Your task to perform on an android device: all mails in gmail Image 0: 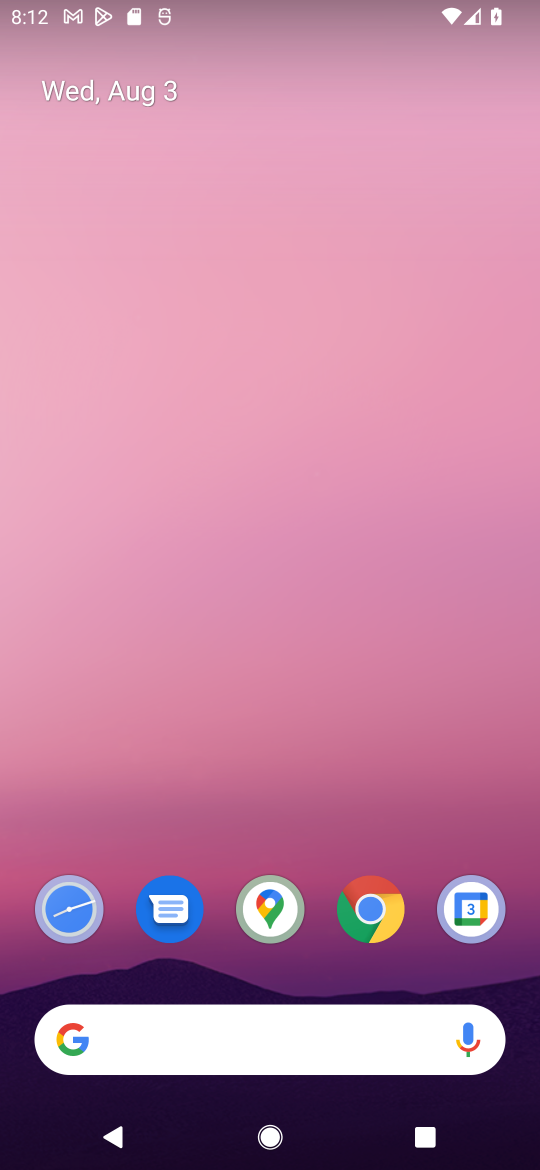
Step 0: press home button
Your task to perform on an android device: all mails in gmail Image 1: 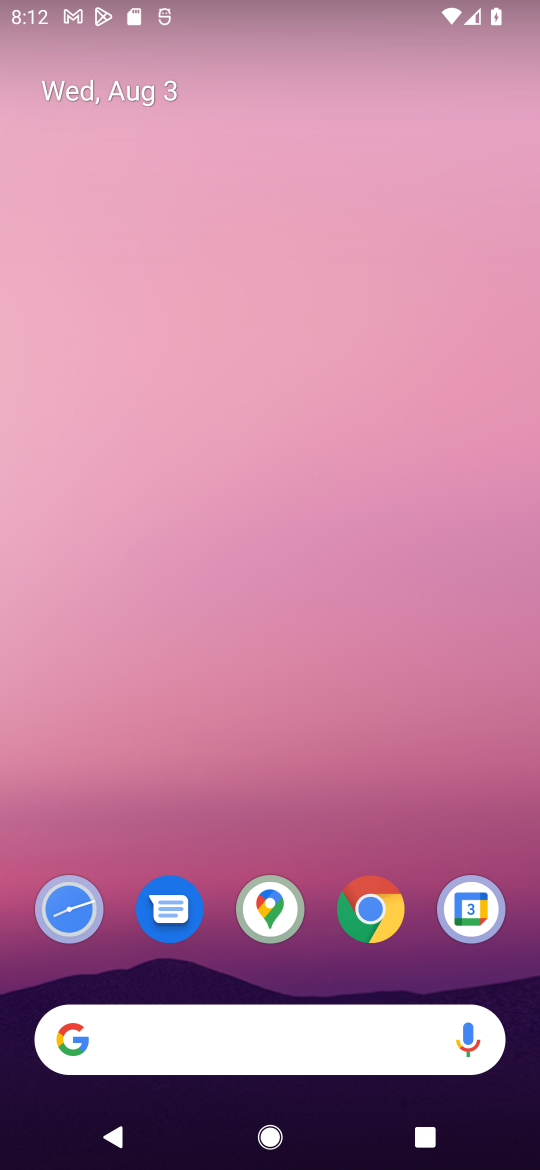
Step 1: drag from (344, 801) to (392, 268)
Your task to perform on an android device: all mails in gmail Image 2: 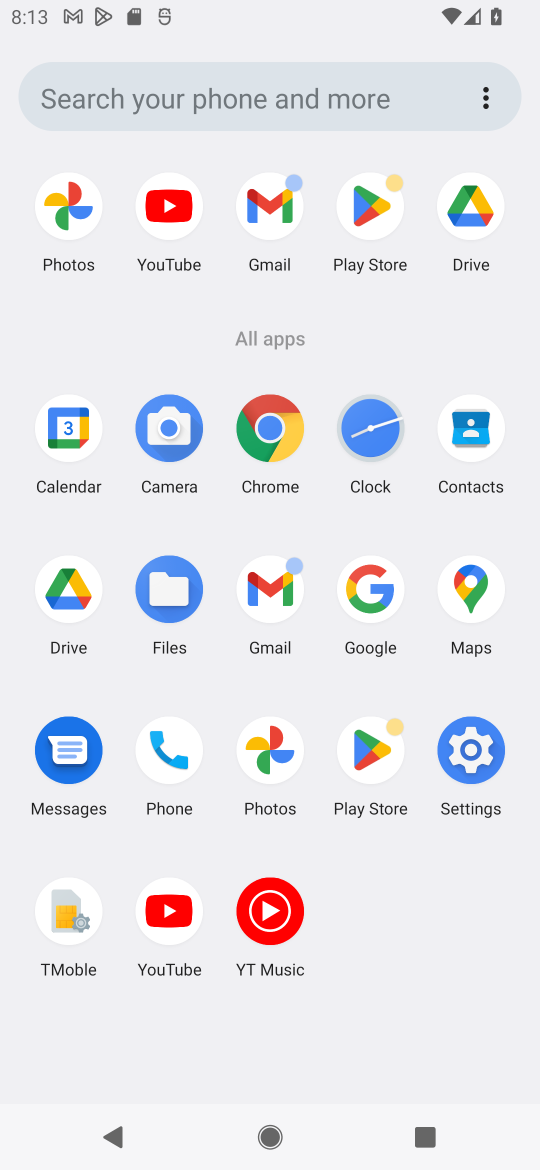
Step 2: click (271, 590)
Your task to perform on an android device: all mails in gmail Image 3: 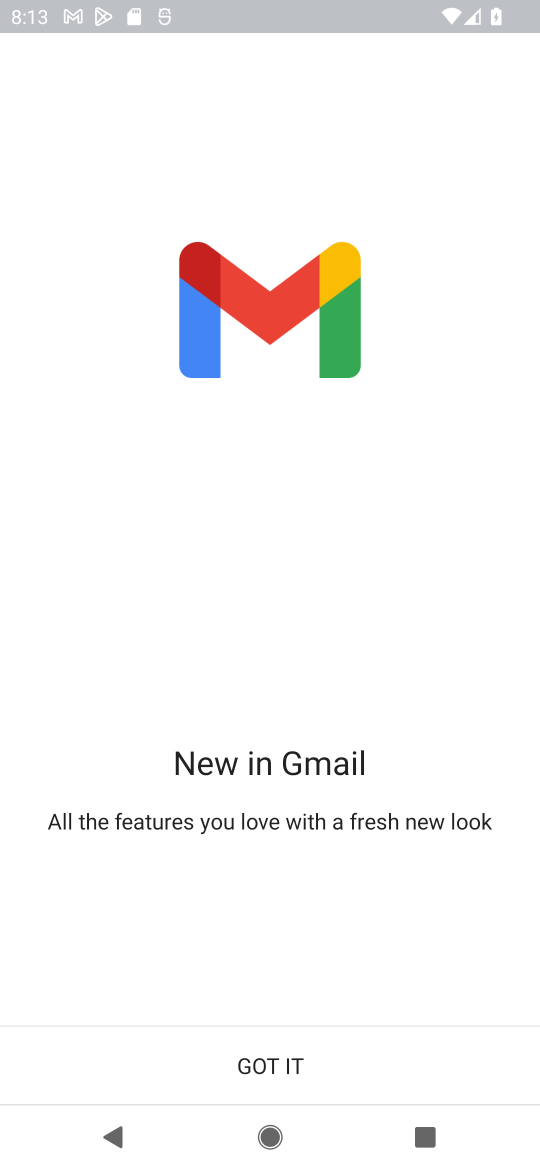
Step 3: click (257, 1062)
Your task to perform on an android device: all mails in gmail Image 4: 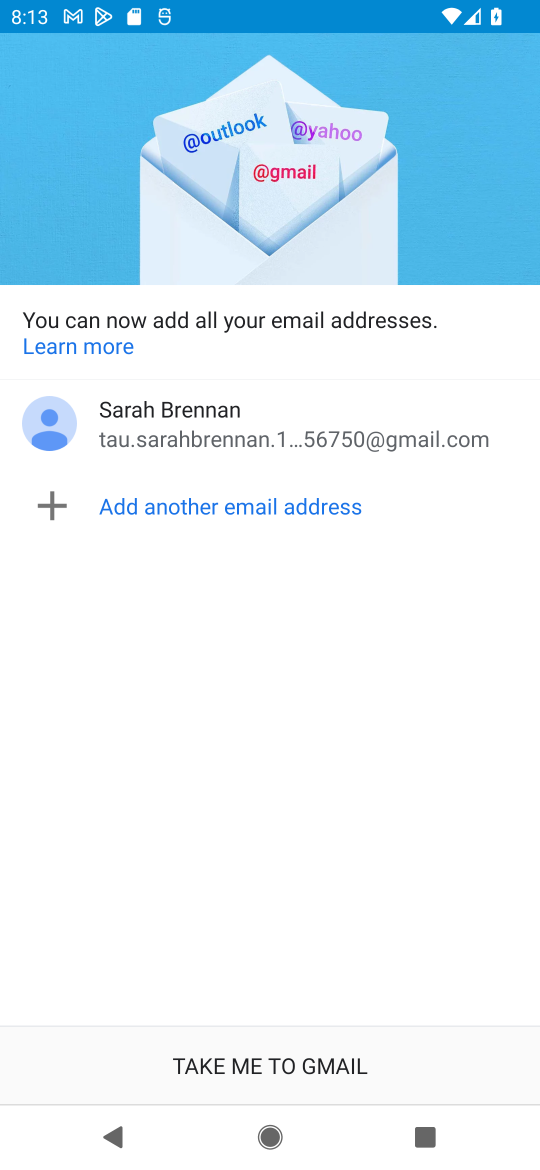
Step 4: click (285, 1057)
Your task to perform on an android device: all mails in gmail Image 5: 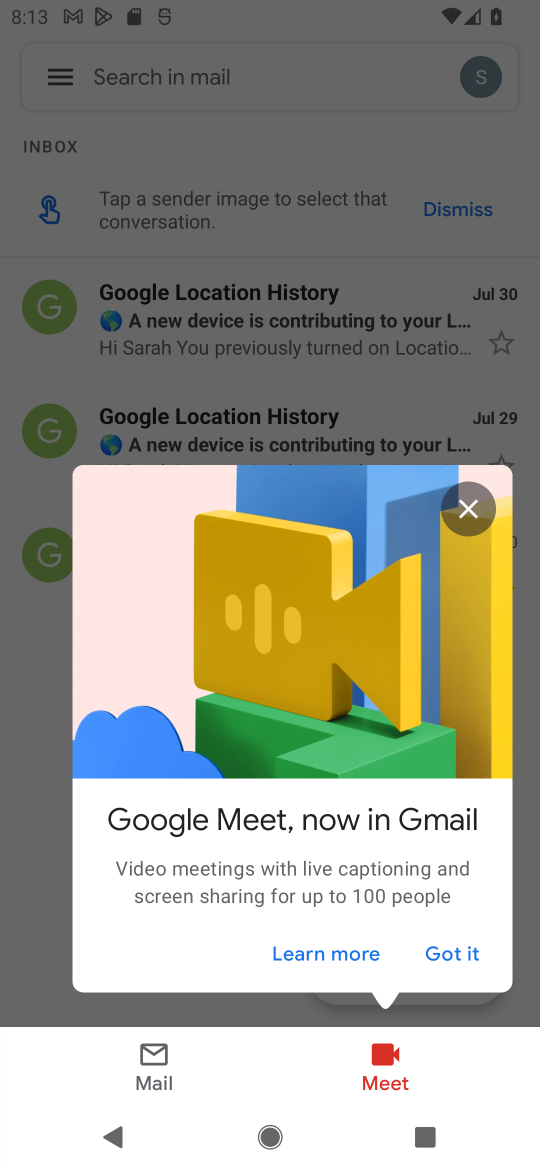
Step 5: click (468, 500)
Your task to perform on an android device: all mails in gmail Image 6: 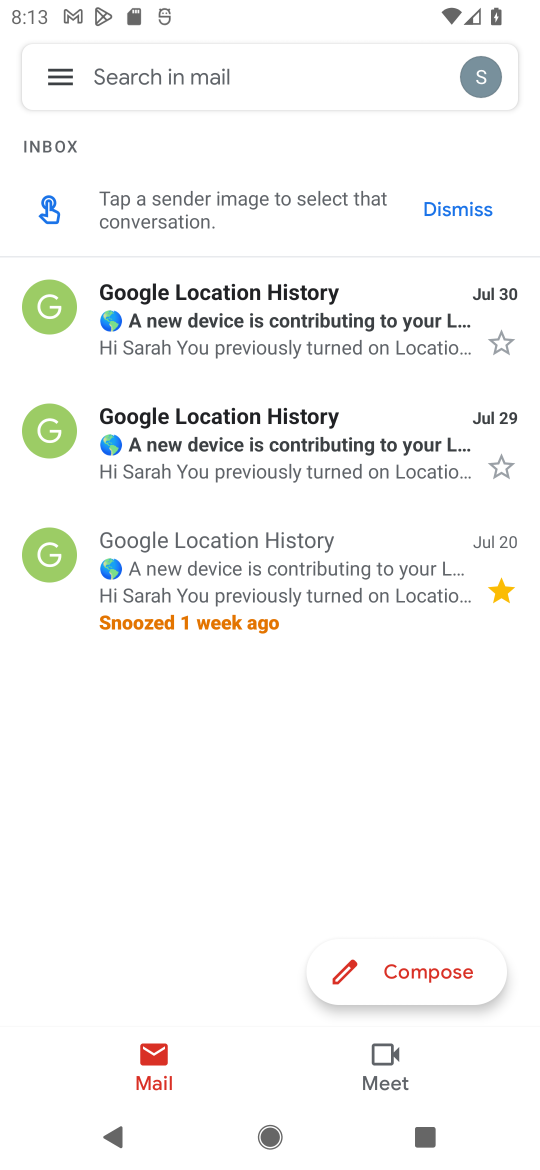
Step 6: click (58, 74)
Your task to perform on an android device: all mails in gmail Image 7: 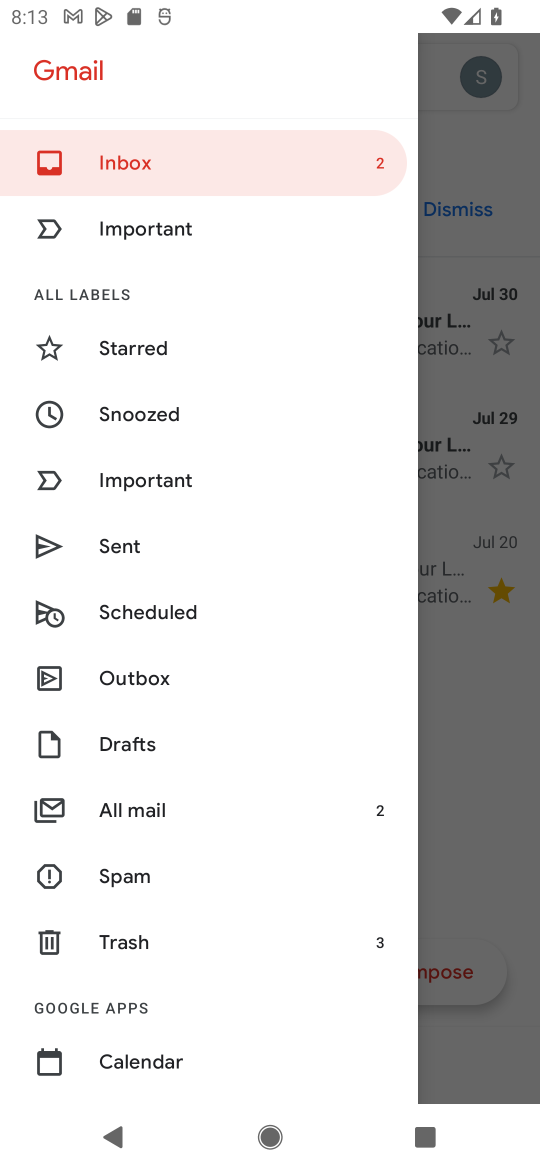
Step 7: drag from (308, 756) to (302, 617)
Your task to perform on an android device: all mails in gmail Image 8: 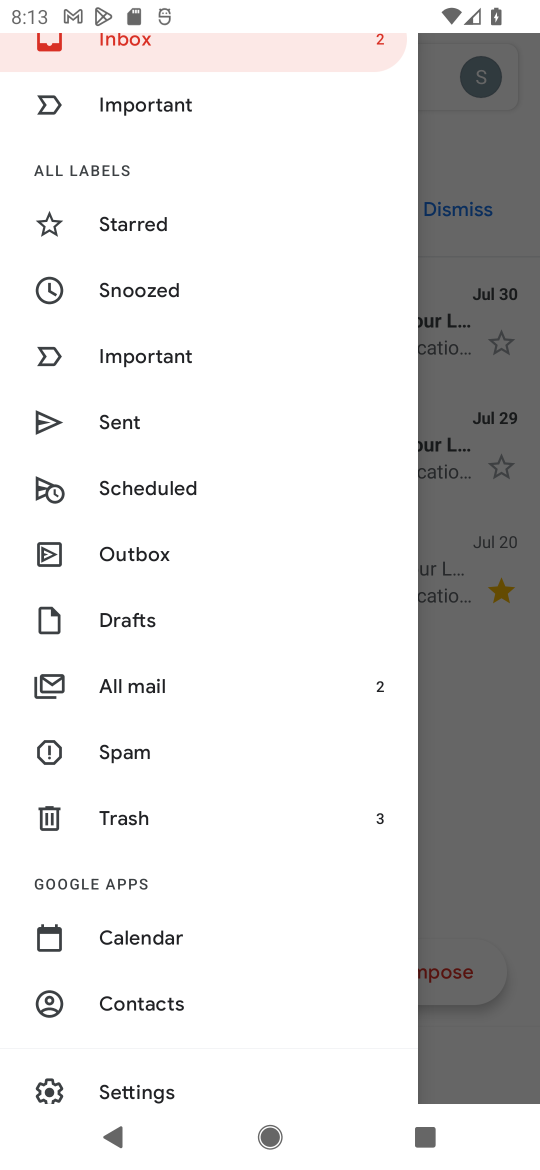
Step 8: drag from (281, 824) to (277, 564)
Your task to perform on an android device: all mails in gmail Image 9: 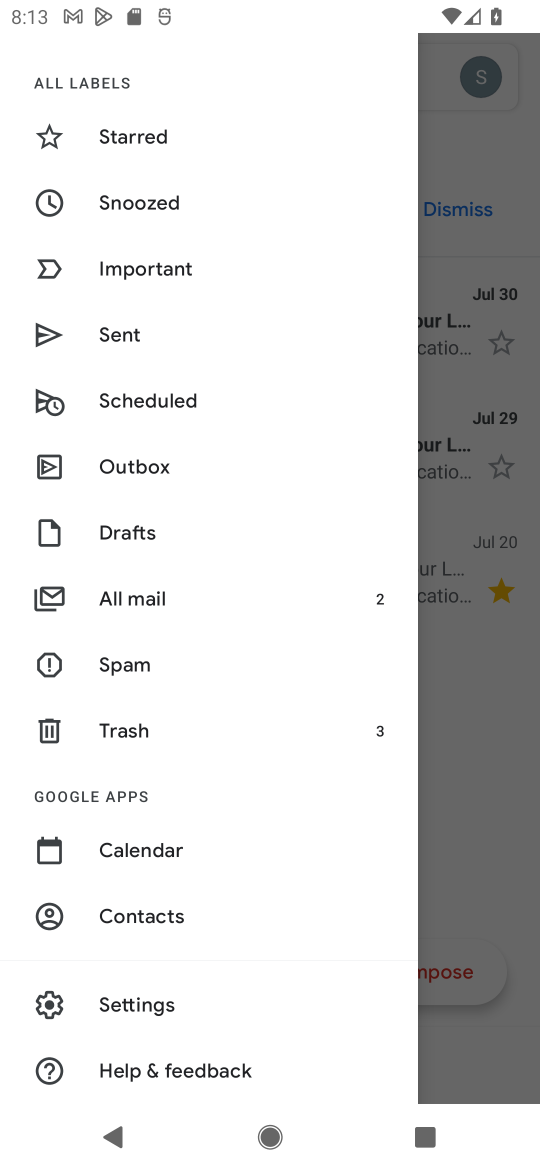
Step 9: click (189, 611)
Your task to perform on an android device: all mails in gmail Image 10: 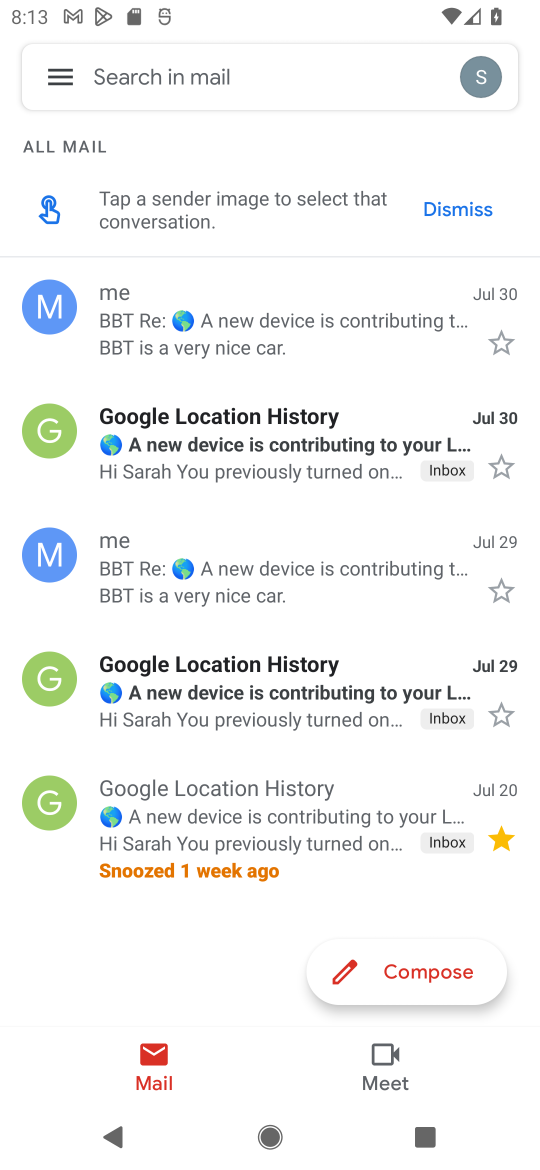
Step 10: task complete